Your task to perform on an android device: Go to location settings Image 0: 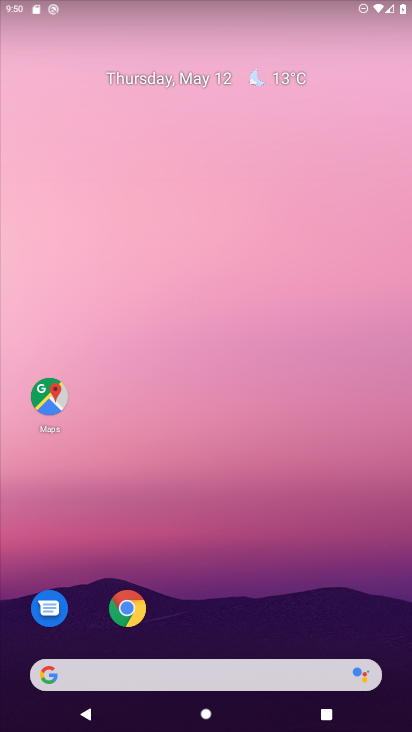
Step 0: drag from (210, 609) to (208, 157)
Your task to perform on an android device: Go to location settings Image 1: 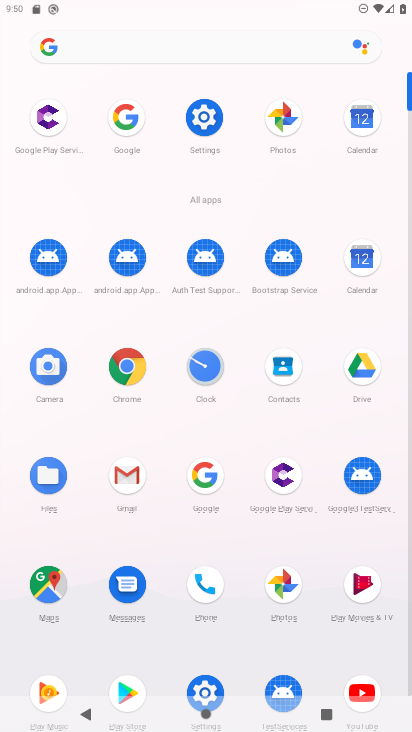
Step 1: click (203, 114)
Your task to perform on an android device: Go to location settings Image 2: 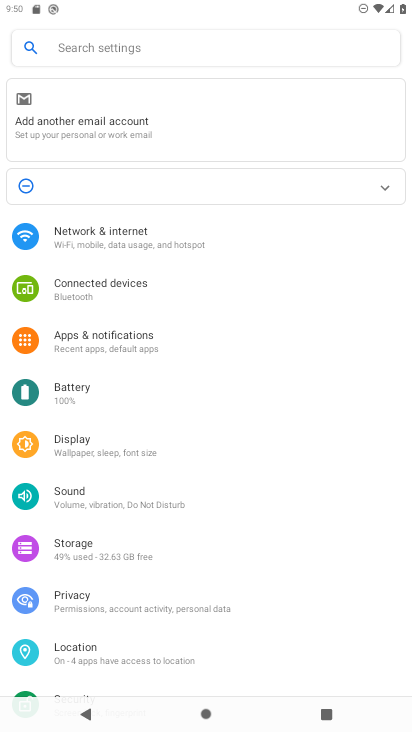
Step 2: click (70, 656)
Your task to perform on an android device: Go to location settings Image 3: 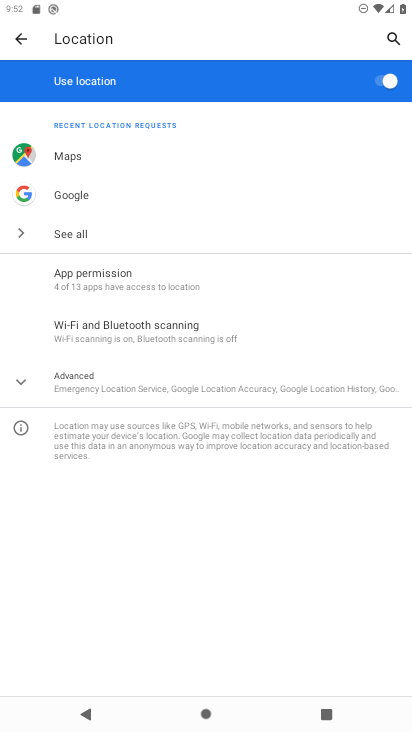
Step 3: task complete